Your task to perform on an android device: Show me popular videos on Youtube Image 0: 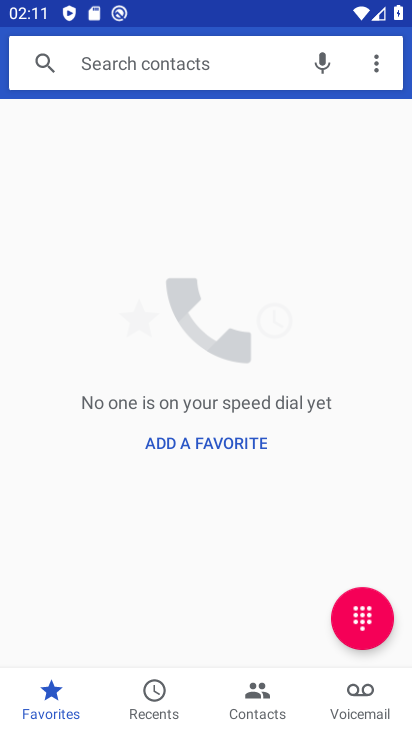
Step 0: press home button
Your task to perform on an android device: Show me popular videos on Youtube Image 1: 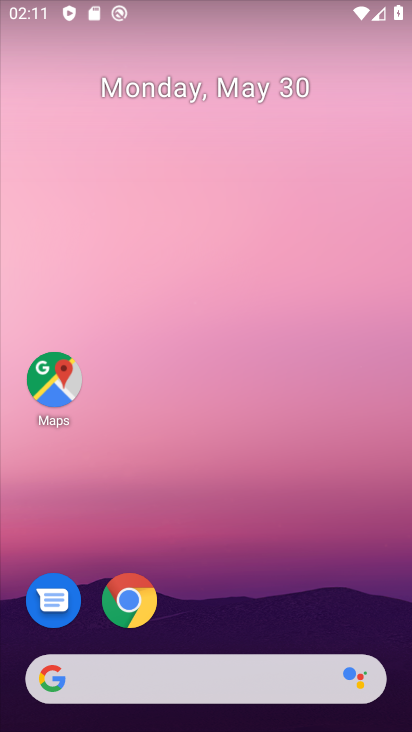
Step 1: drag from (224, 606) to (269, 142)
Your task to perform on an android device: Show me popular videos on Youtube Image 2: 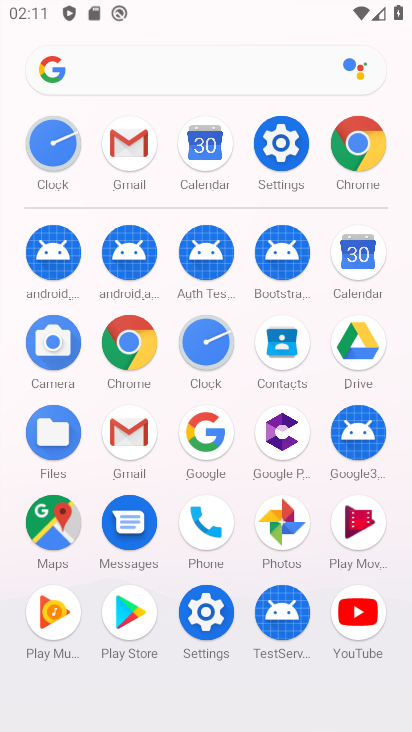
Step 2: click (358, 621)
Your task to perform on an android device: Show me popular videos on Youtube Image 3: 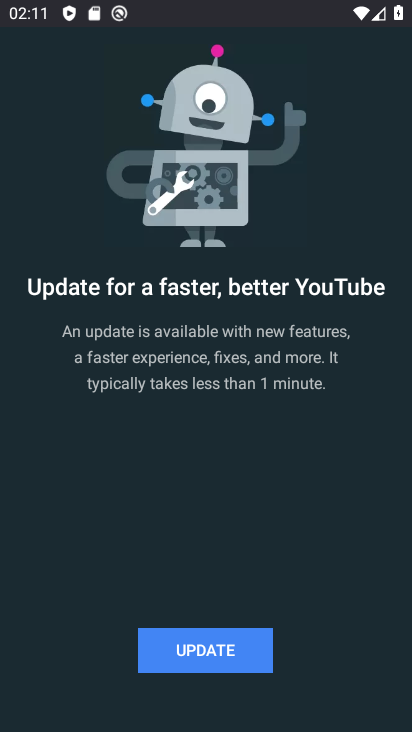
Step 3: click (219, 653)
Your task to perform on an android device: Show me popular videos on Youtube Image 4: 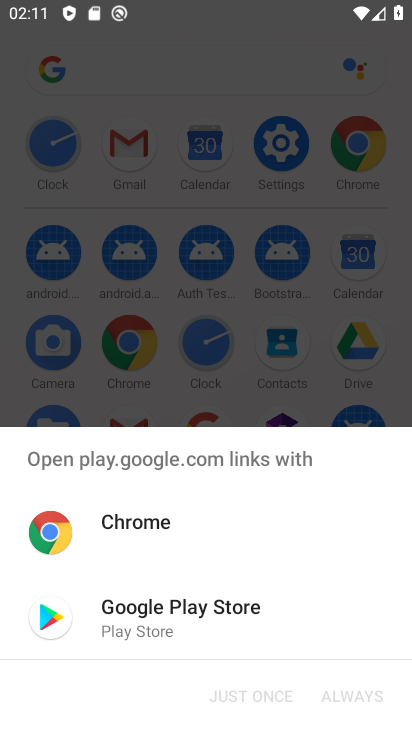
Step 4: click (193, 620)
Your task to perform on an android device: Show me popular videos on Youtube Image 5: 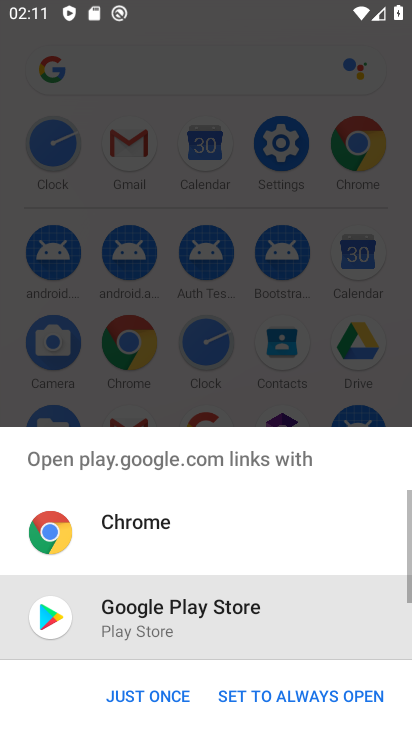
Step 5: click (156, 694)
Your task to perform on an android device: Show me popular videos on Youtube Image 6: 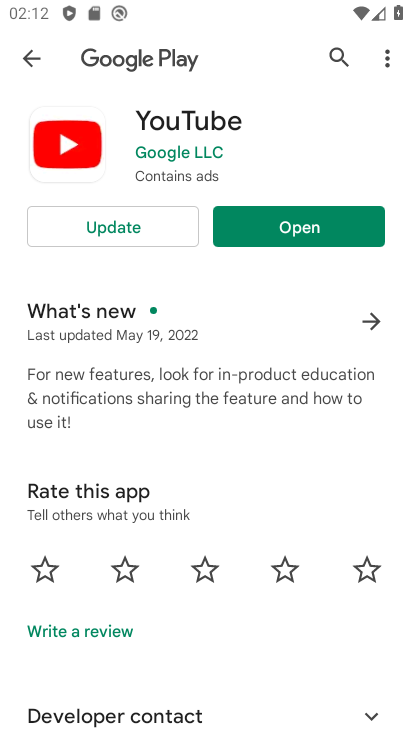
Step 6: click (151, 234)
Your task to perform on an android device: Show me popular videos on Youtube Image 7: 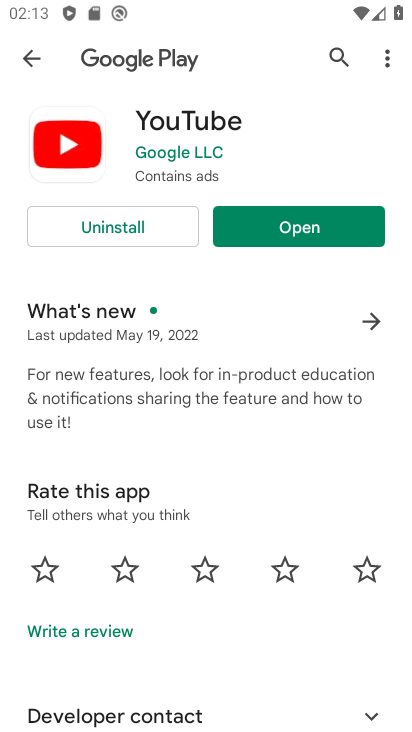
Step 7: click (331, 226)
Your task to perform on an android device: Show me popular videos on Youtube Image 8: 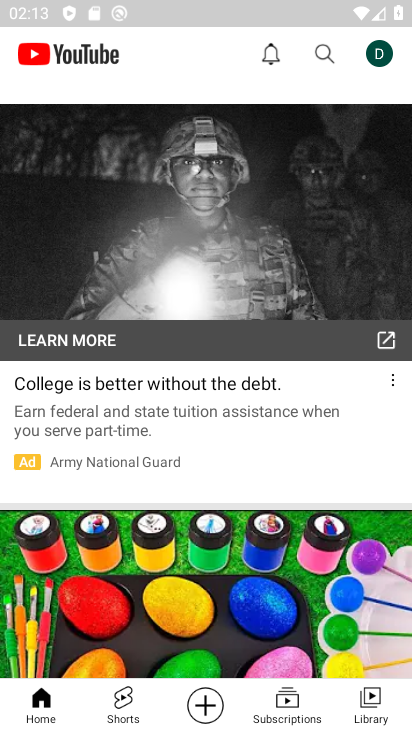
Step 8: click (322, 52)
Your task to perform on an android device: Show me popular videos on Youtube Image 9: 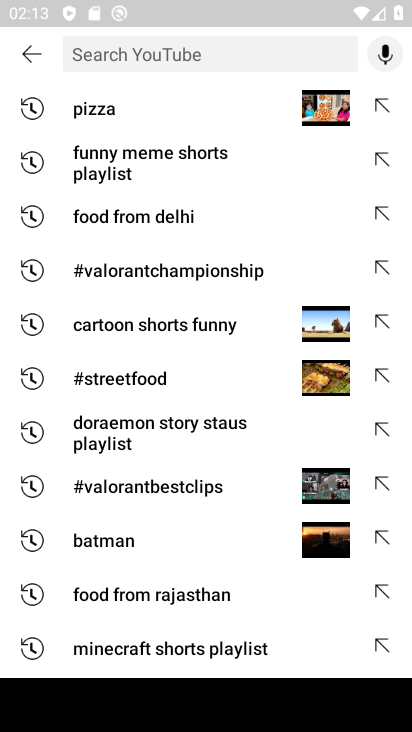
Step 9: click (157, 51)
Your task to perform on an android device: Show me popular videos on Youtube Image 10: 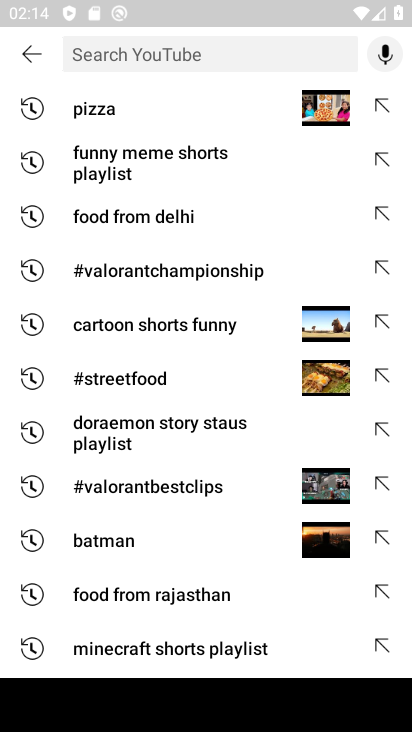
Step 10: type "popular videos"
Your task to perform on an android device: Show me popular videos on Youtube Image 11: 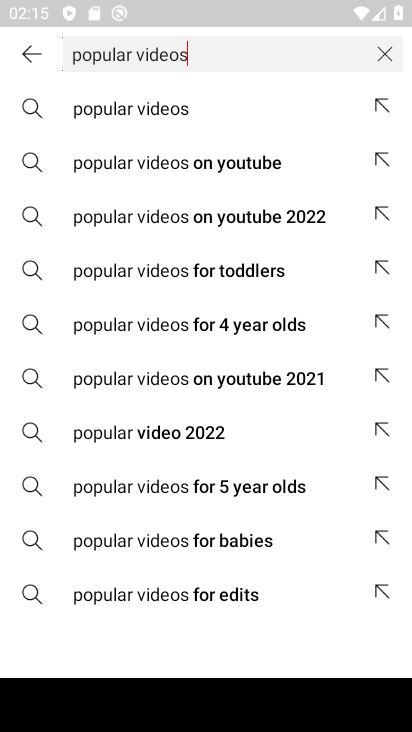
Step 11: click (156, 111)
Your task to perform on an android device: Show me popular videos on Youtube Image 12: 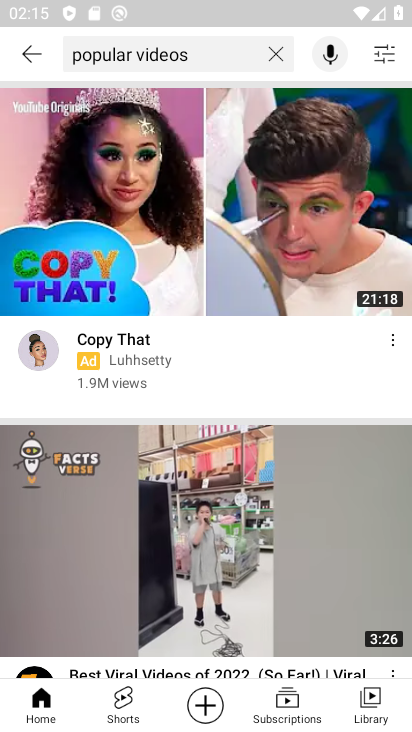
Step 12: task complete